Your task to perform on an android device: Open calendar and show me the second week of next month Image 0: 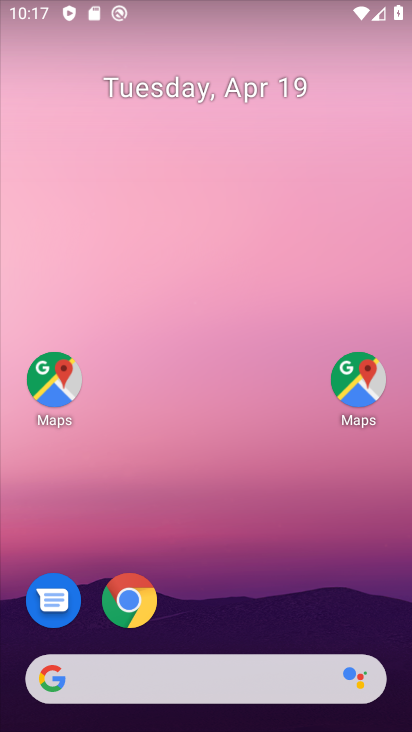
Step 0: drag from (328, 638) to (342, 83)
Your task to perform on an android device: Open calendar and show me the second week of next month Image 1: 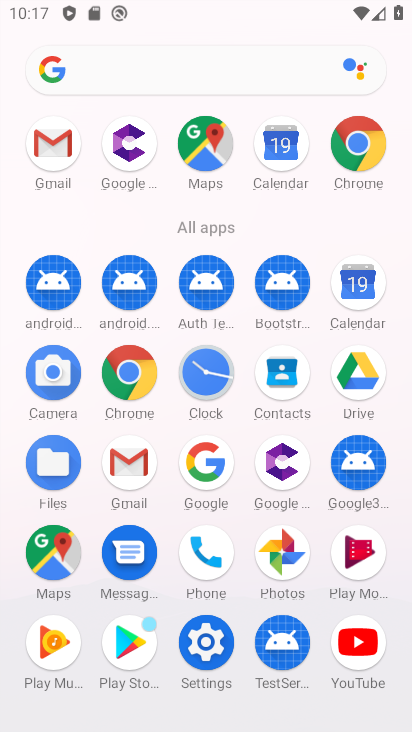
Step 1: click (363, 290)
Your task to perform on an android device: Open calendar and show me the second week of next month Image 2: 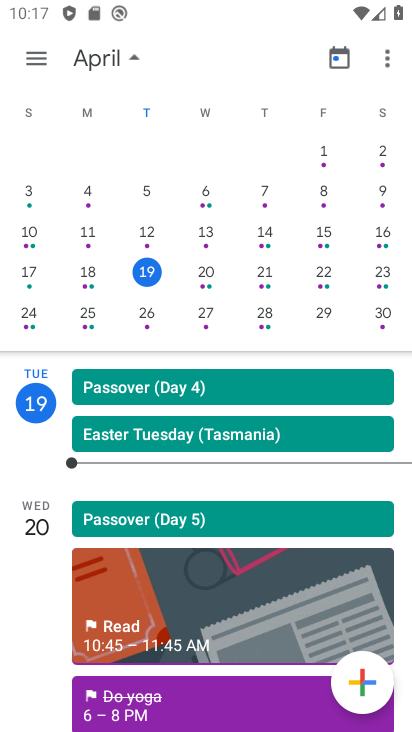
Step 2: drag from (358, 273) to (221, 334)
Your task to perform on an android device: Open calendar and show me the second week of next month Image 3: 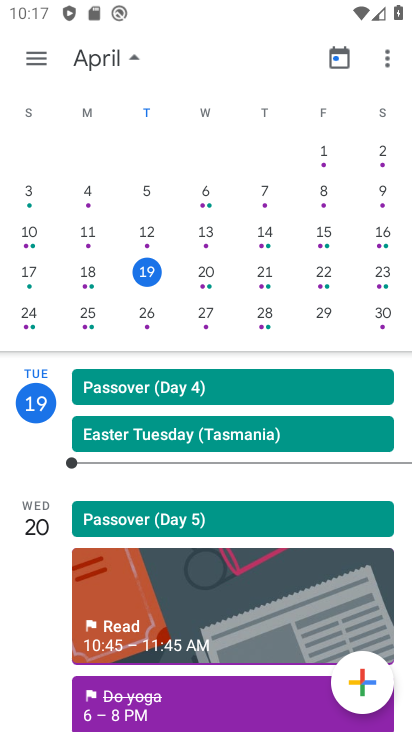
Step 3: drag from (343, 246) to (39, 267)
Your task to perform on an android device: Open calendar and show me the second week of next month Image 4: 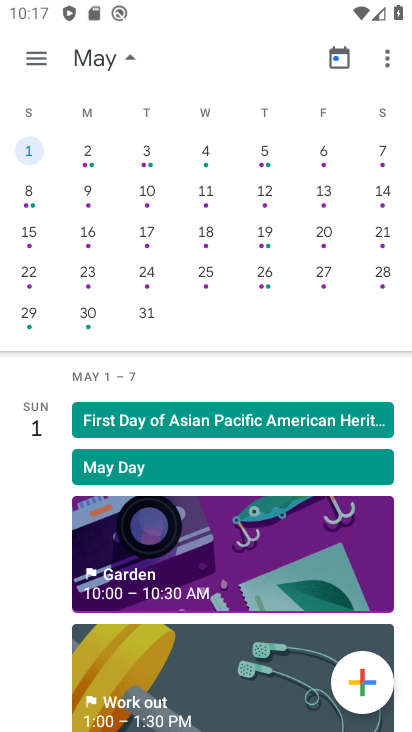
Step 4: drag from (239, 201) to (322, 142)
Your task to perform on an android device: Open calendar and show me the second week of next month Image 5: 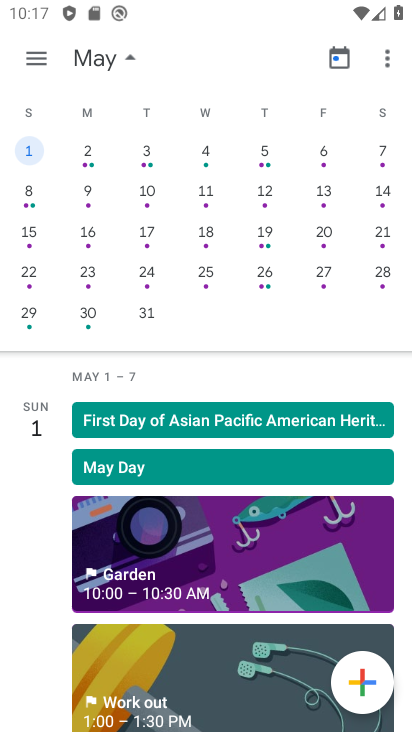
Step 5: drag from (222, 184) to (3, 509)
Your task to perform on an android device: Open calendar and show me the second week of next month Image 6: 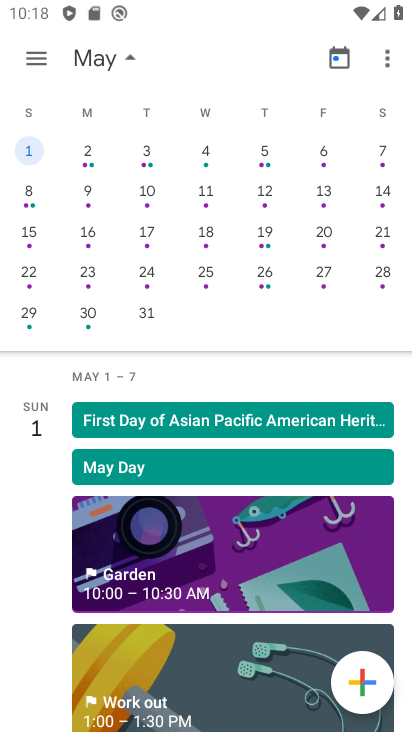
Step 6: drag from (162, 522) to (188, 427)
Your task to perform on an android device: Open calendar and show me the second week of next month Image 7: 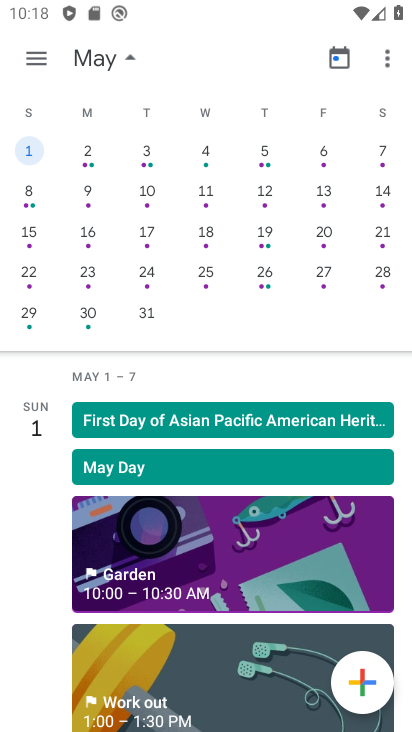
Step 7: click (209, 194)
Your task to perform on an android device: Open calendar and show me the second week of next month Image 8: 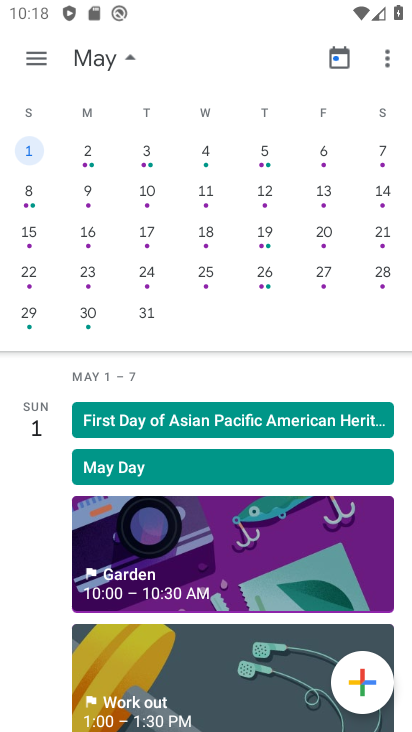
Step 8: task complete